Your task to perform on an android device: Search for "beats solo 3" on amazon.com, select the first entry, add it to the cart, then select checkout. Image 0: 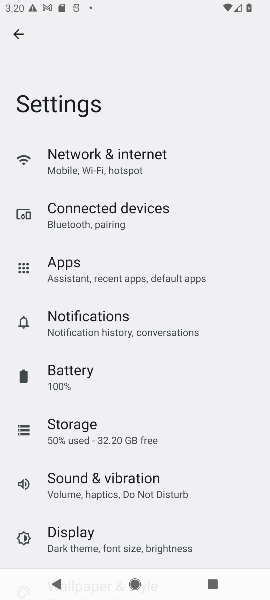
Step 0: press home button
Your task to perform on an android device: Search for "beats solo 3" on amazon.com, select the first entry, add it to the cart, then select checkout. Image 1: 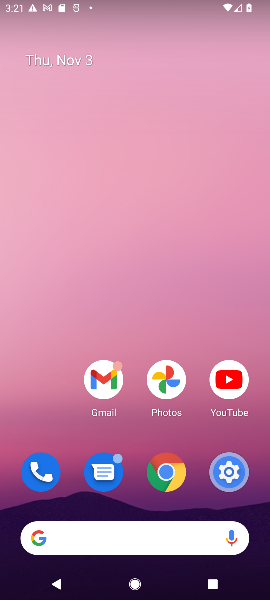
Step 1: click (102, 546)
Your task to perform on an android device: Search for "beats solo 3" on amazon.com, select the first entry, add it to the cart, then select checkout. Image 2: 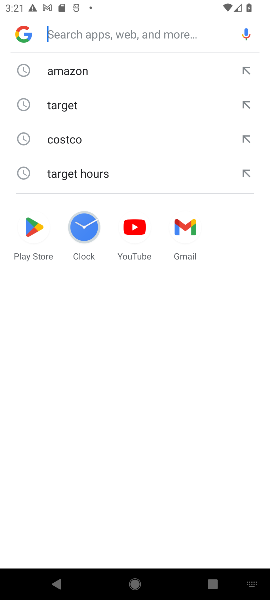
Step 2: click (84, 80)
Your task to perform on an android device: Search for "beats solo 3" on amazon.com, select the first entry, add it to the cart, then select checkout. Image 3: 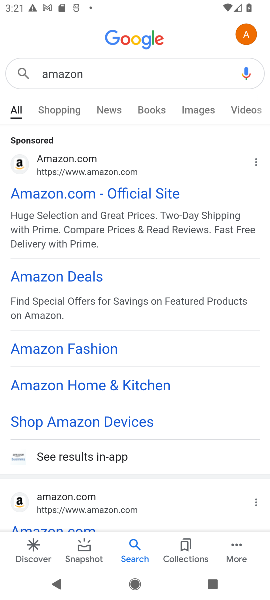
Step 3: click (93, 200)
Your task to perform on an android device: Search for "beats solo 3" on amazon.com, select the first entry, add it to the cart, then select checkout. Image 4: 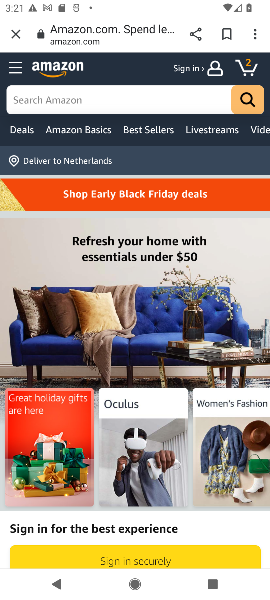
Step 4: click (98, 96)
Your task to perform on an android device: Search for "beats solo 3" on amazon.com, select the first entry, add it to the cart, then select checkout. Image 5: 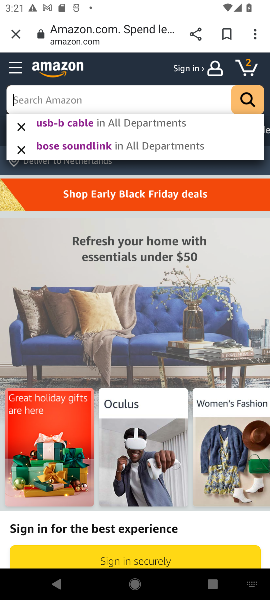
Step 5: type "beat solo  3"
Your task to perform on an android device: Search for "beats solo 3" on amazon.com, select the first entry, add it to the cart, then select checkout. Image 6: 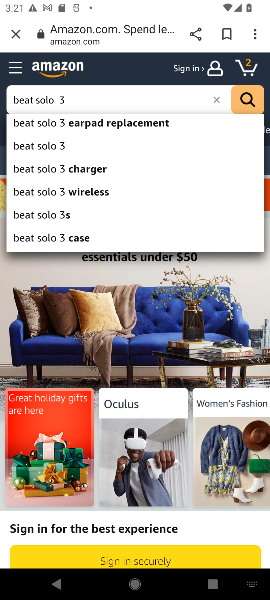
Step 6: click (45, 144)
Your task to perform on an android device: Search for "beats solo 3" on amazon.com, select the first entry, add it to the cart, then select checkout. Image 7: 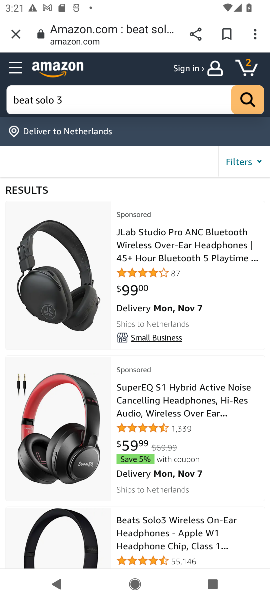
Step 7: click (145, 266)
Your task to perform on an android device: Search for "beats solo 3" on amazon.com, select the first entry, add it to the cart, then select checkout. Image 8: 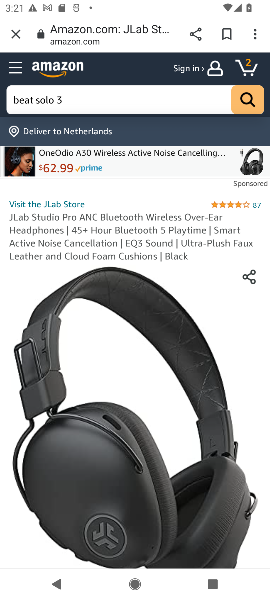
Step 8: drag from (115, 532) to (82, 32)
Your task to perform on an android device: Search for "beats solo 3" on amazon.com, select the first entry, add it to the cart, then select checkout. Image 9: 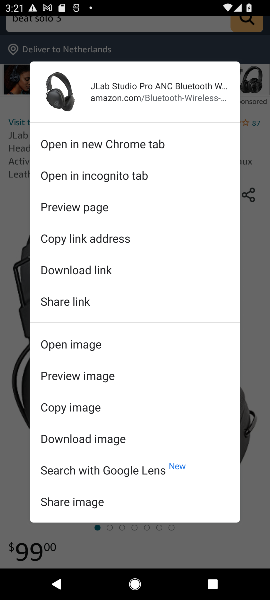
Step 9: click (181, 560)
Your task to perform on an android device: Search for "beats solo 3" on amazon.com, select the first entry, add it to the cart, then select checkout. Image 10: 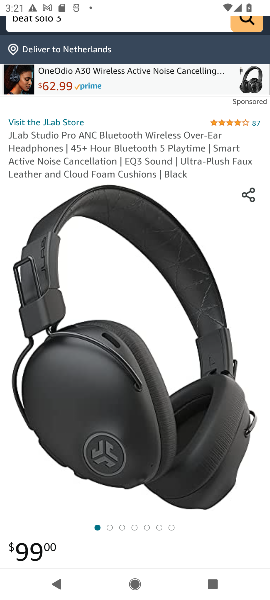
Step 10: drag from (181, 560) to (146, 123)
Your task to perform on an android device: Search for "beats solo 3" on amazon.com, select the first entry, add it to the cart, then select checkout. Image 11: 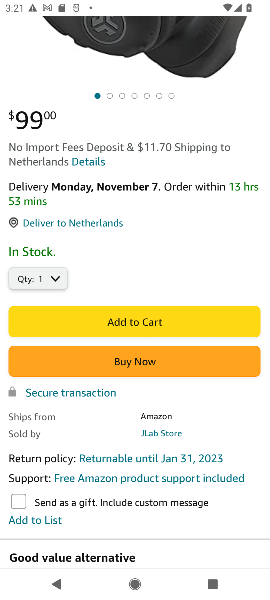
Step 11: click (185, 328)
Your task to perform on an android device: Search for "beats solo 3" on amazon.com, select the first entry, add it to the cart, then select checkout. Image 12: 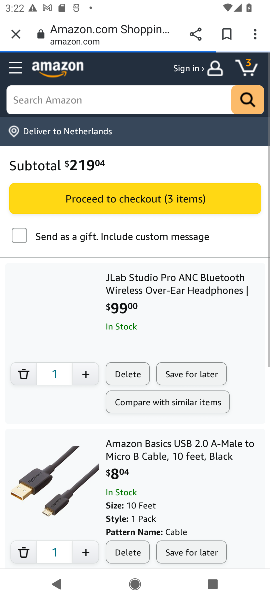
Step 12: task complete